Your task to perform on an android device: Search for "beats solo 3" on amazon, select the first entry, and add it to the cart. Image 0: 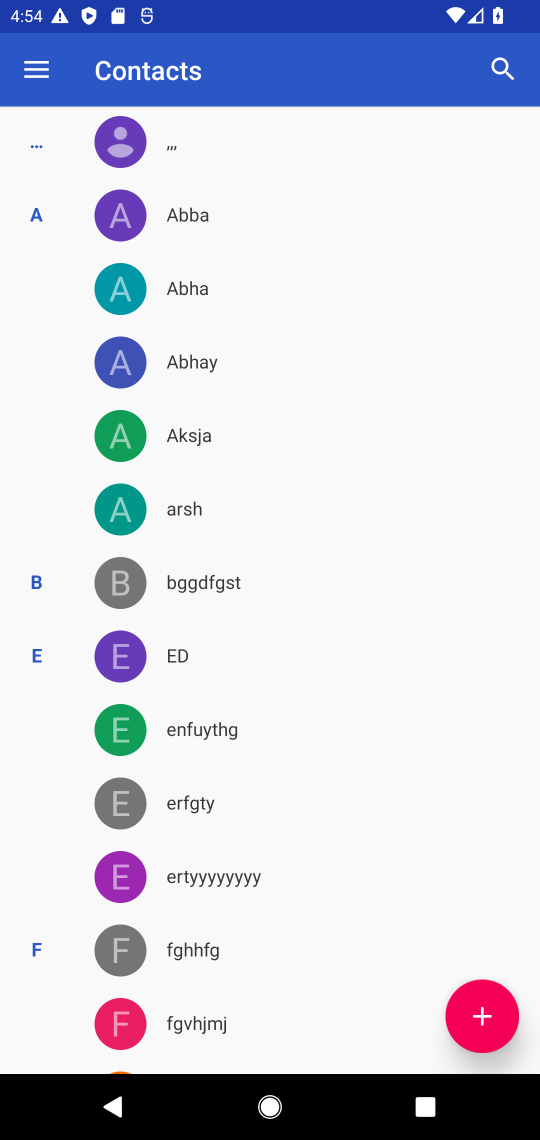
Step 0: press home button
Your task to perform on an android device: Search for "beats solo 3" on amazon, select the first entry, and add it to the cart. Image 1: 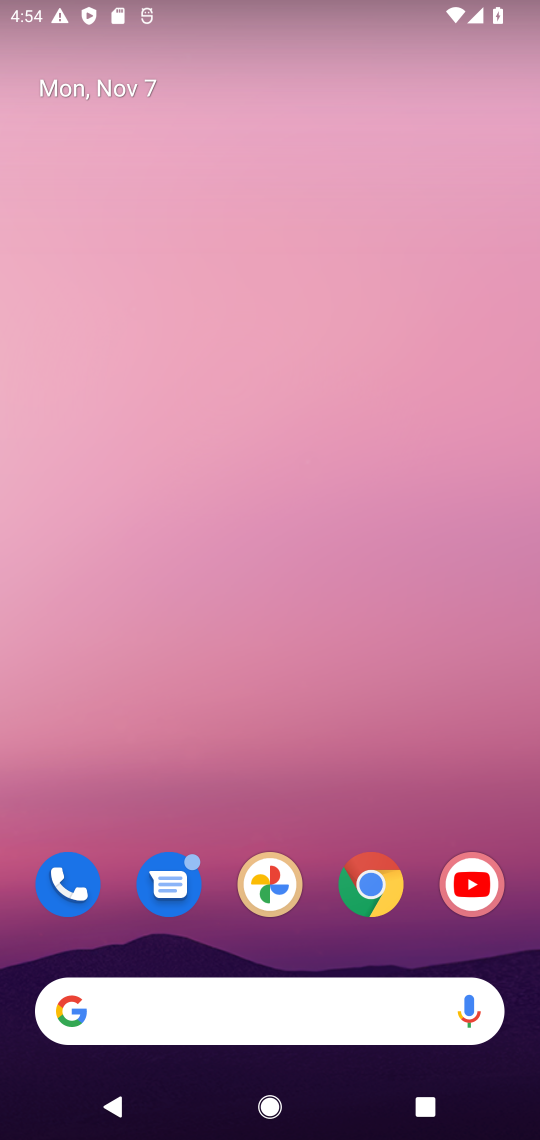
Step 1: drag from (316, 948) to (284, 41)
Your task to perform on an android device: Search for "beats solo 3" on amazon, select the first entry, and add it to the cart. Image 2: 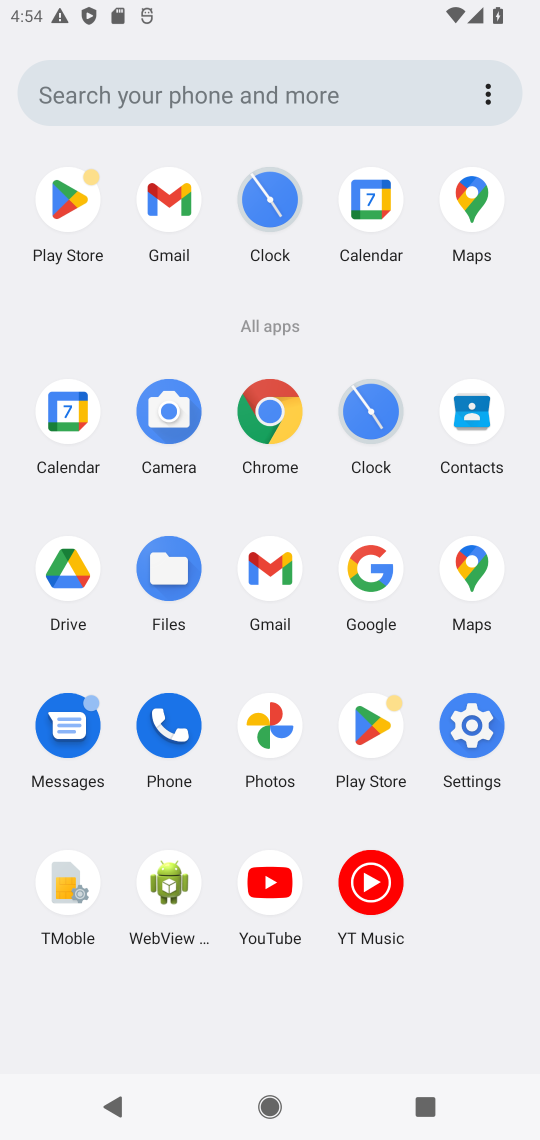
Step 2: click (271, 414)
Your task to perform on an android device: Search for "beats solo 3" on amazon, select the first entry, and add it to the cart. Image 3: 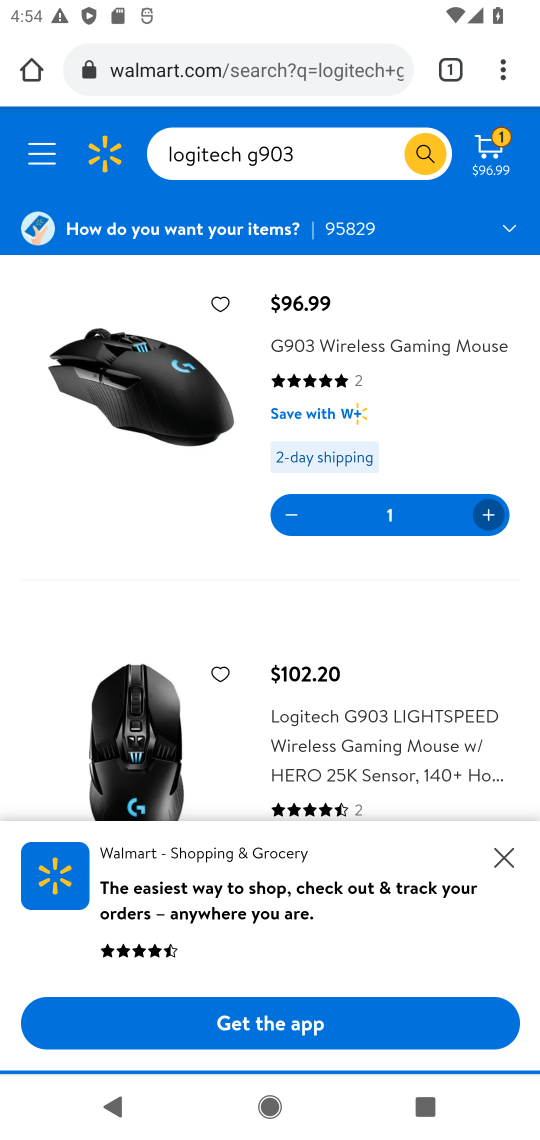
Step 3: click (258, 65)
Your task to perform on an android device: Search for "beats solo 3" on amazon, select the first entry, and add it to the cart. Image 4: 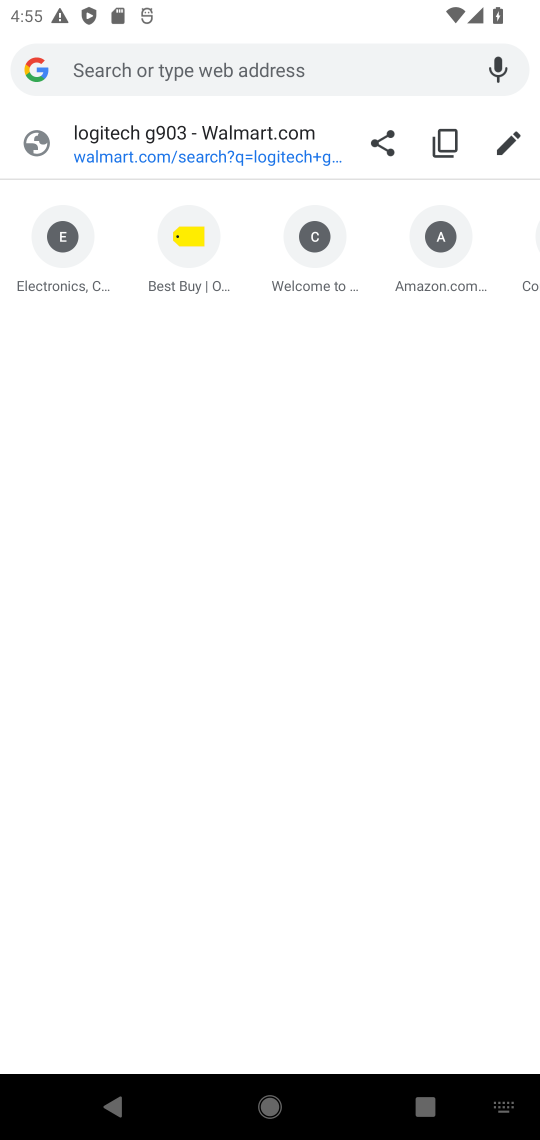
Step 4: type "amazon.com"
Your task to perform on an android device: Search for "beats solo 3" on amazon, select the first entry, and add it to the cart. Image 5: 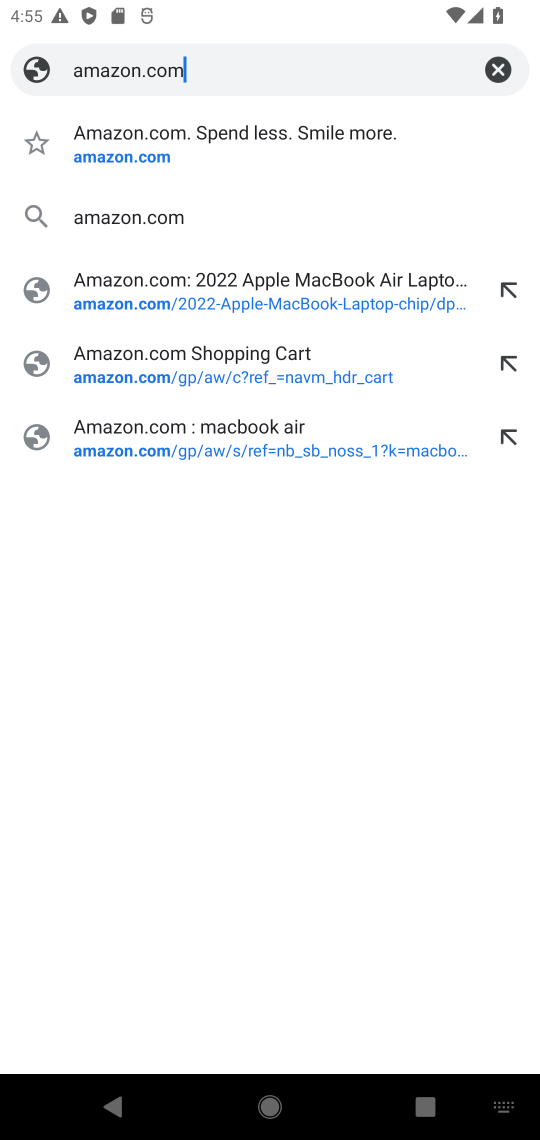
Step 5: press enter
Your task to perform on an android device: Search for "beats solo 3" on amazon, select the first entry, and add it to the cart. Image 6: 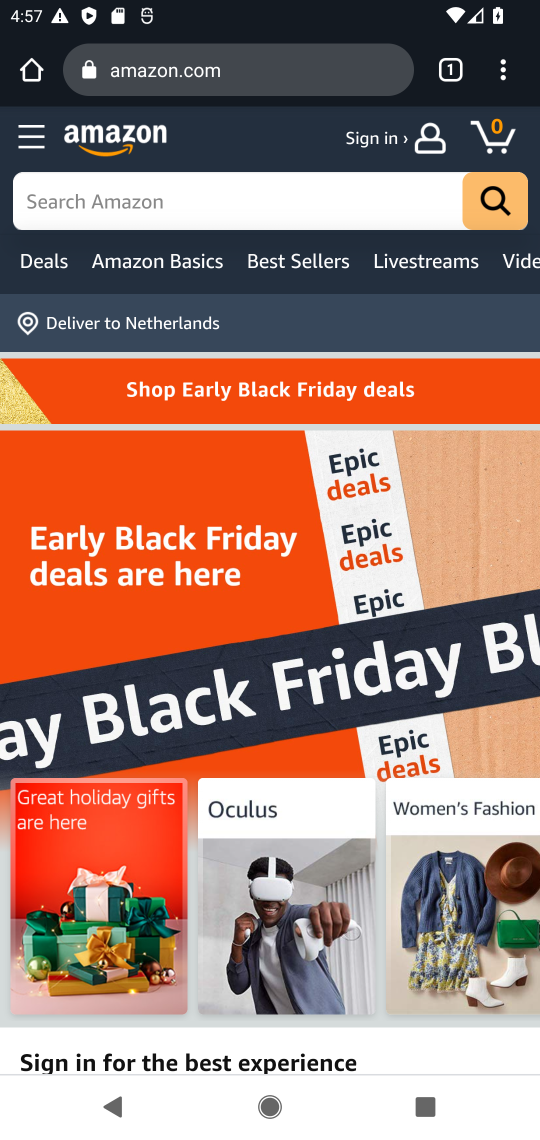
Step 6: click (292, 189)
Your task to perform on an android device: Search for "beats solo 3" on amazon, select the first entry, and add it to the cart. Image 7: 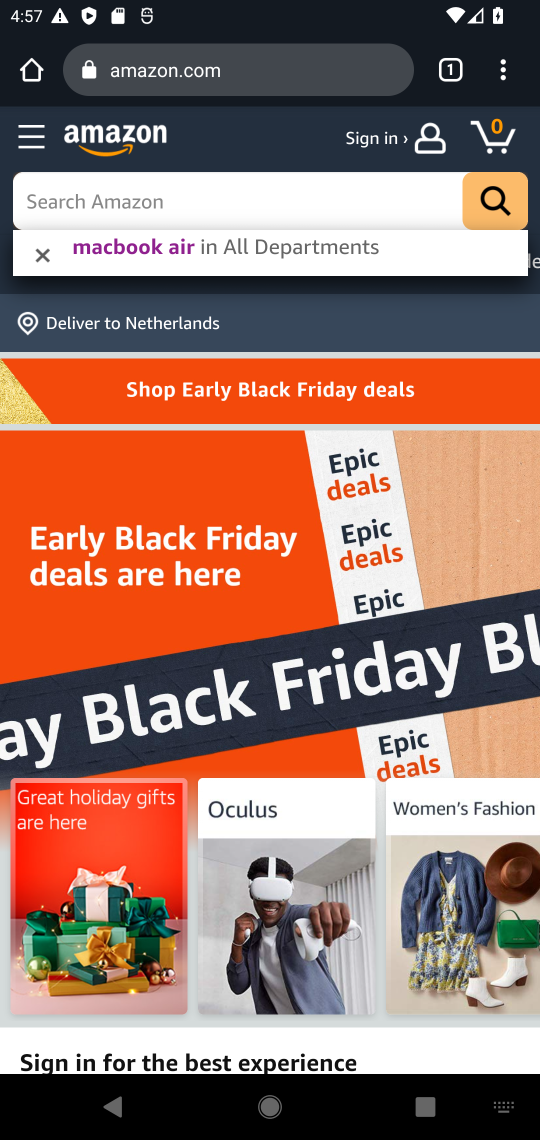
Step 7: type "beats solo 3"
Your task to perform on an android device: Search for "beats solo 3" on amazon, select the first entry, and add it to the cart. Image 8: 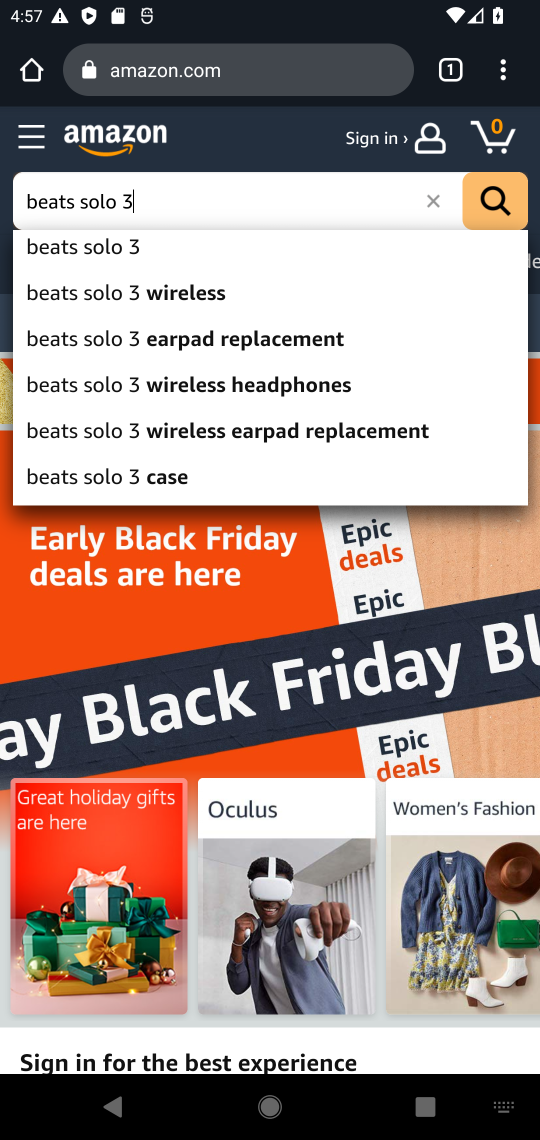
Step 8: press enter
Your task to perform on an android device: Search for "beats solo 3" on amazon, select the first entry, and add it to the cart. Image 9: 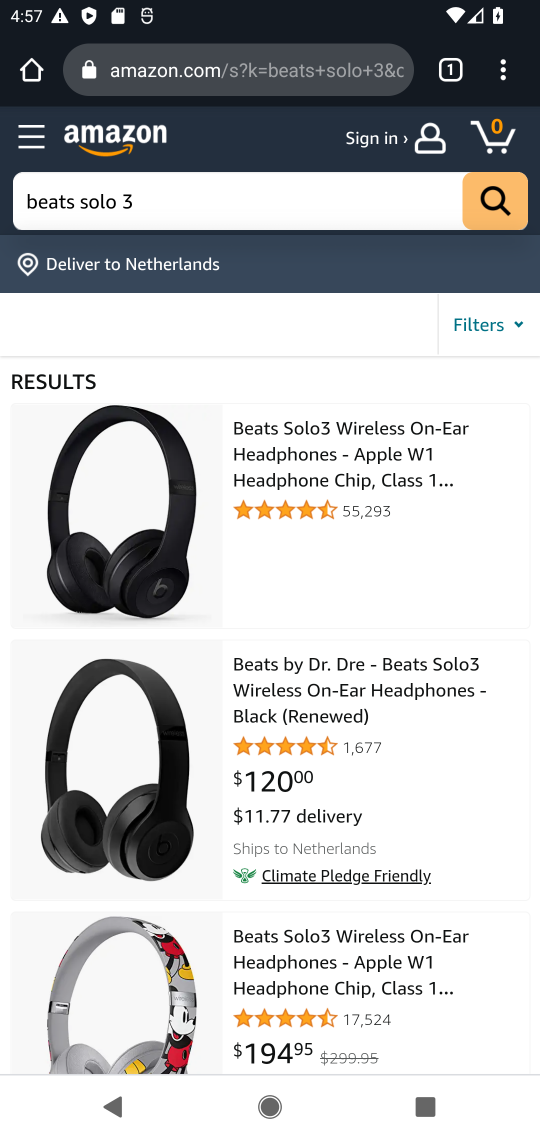
Step 9: click (306, 442)
Your task to perform on an android device: Search for "beats solo 3" on amazon, select the first entry, and add it to the cart. Image 10: 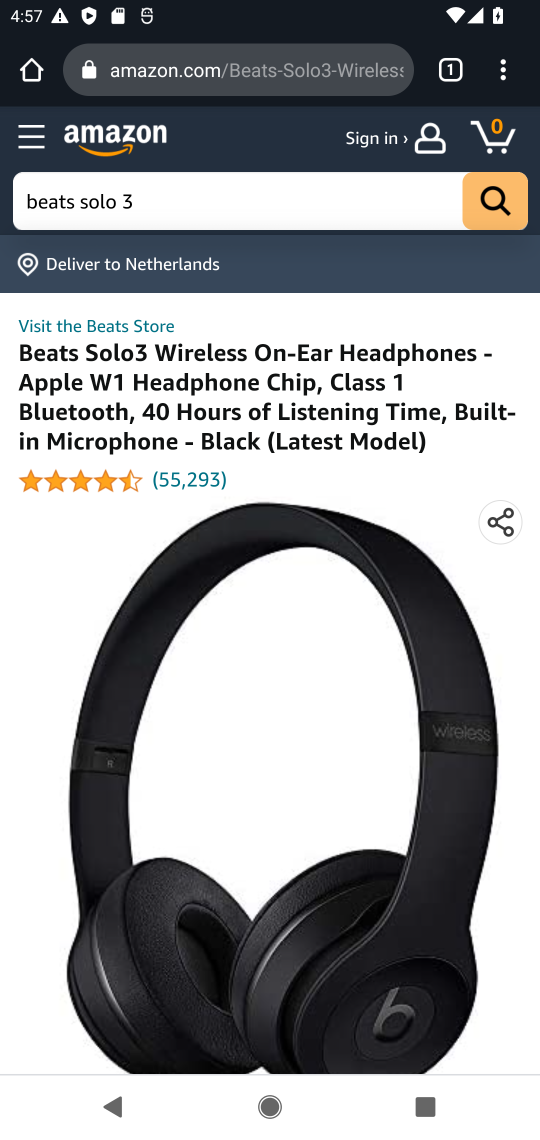
Step 10: task complete